Your task to perform on an android device: Open calendar and show me the second week of next month Image 0: 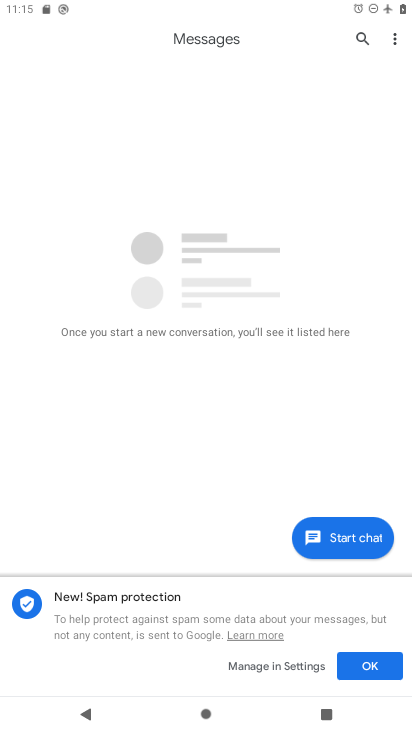
Step 0: press home button
Your task to perform on an android device: Open calendar and show me the second week of next month Image 1: 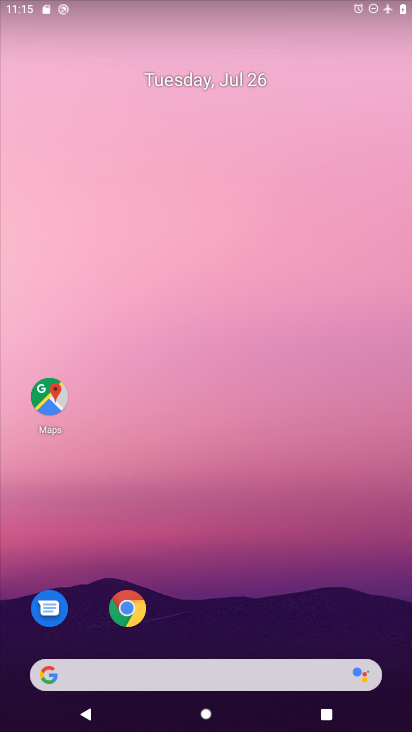
Step 1: drag from (301, 545) to (298, 56)
Your task to perform on an android device: Open calendar and show me the second week of next month Image 2: 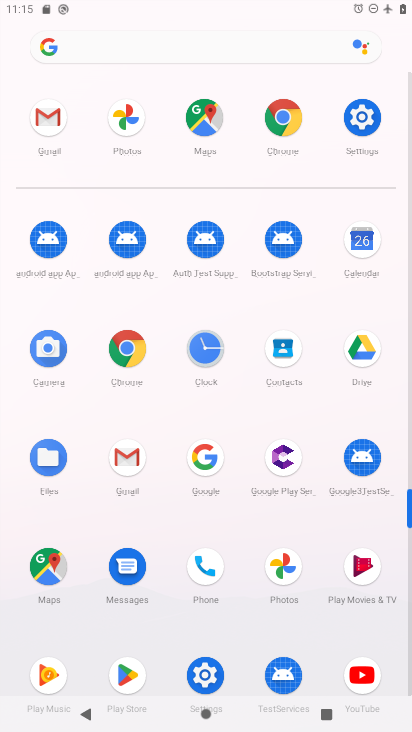
Step 2: click (363, 233)
Your task to perform on an android device: Open calendar and show me the second week of next month Image 3: 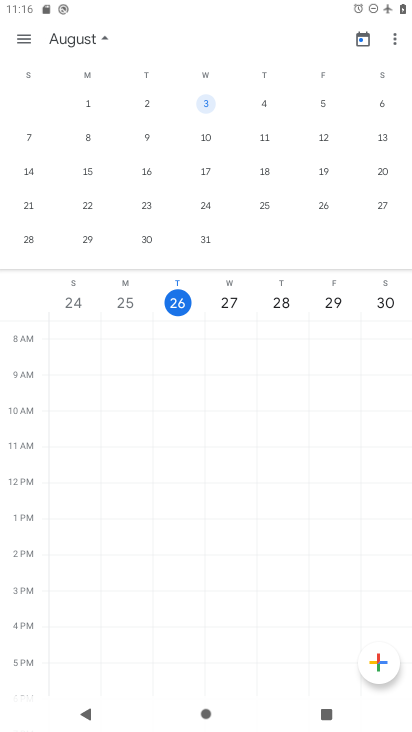
Step 3: click (141, 130)
Your task to perform on an android device: Open calendar and show me the second week of next month Image 4: 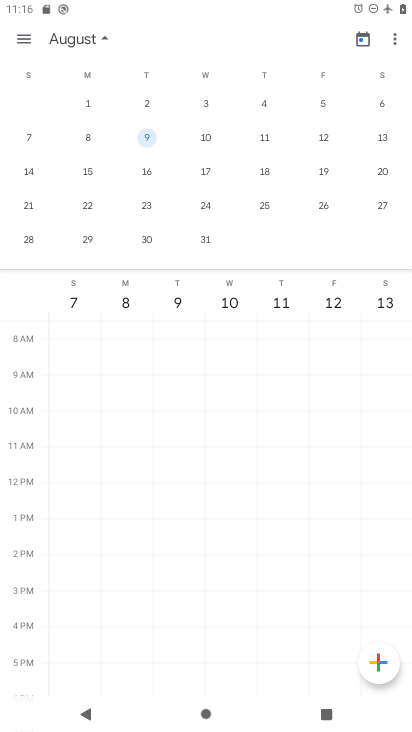
Step 4: task complete